Your task to perform on an android device: move an email to a new category in the gmail app Image 0: 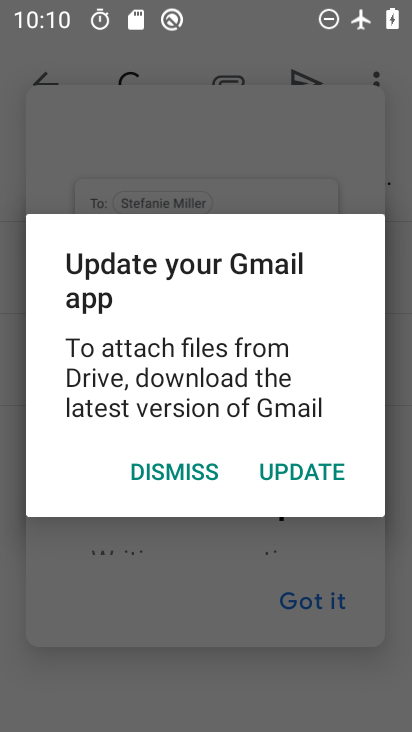
Step 0: press home button
Your task to perform on an android device: move an email to a new category in the gmail app Image 1: 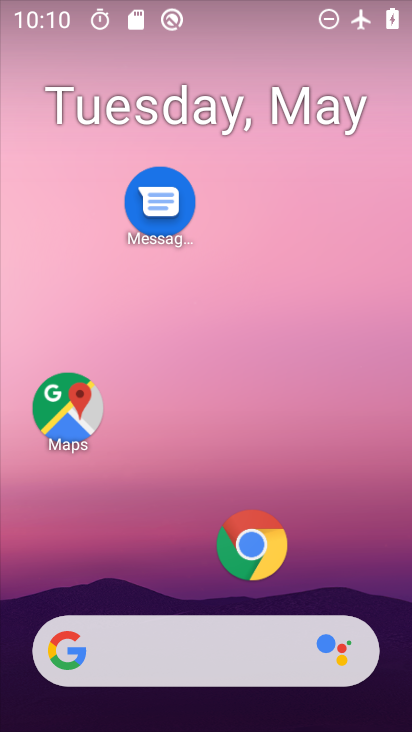
Step 1: drag from (176, 596) to (194, 159)
Your task to perform on an android device: move an email to a new category in the gmail app Image 2: 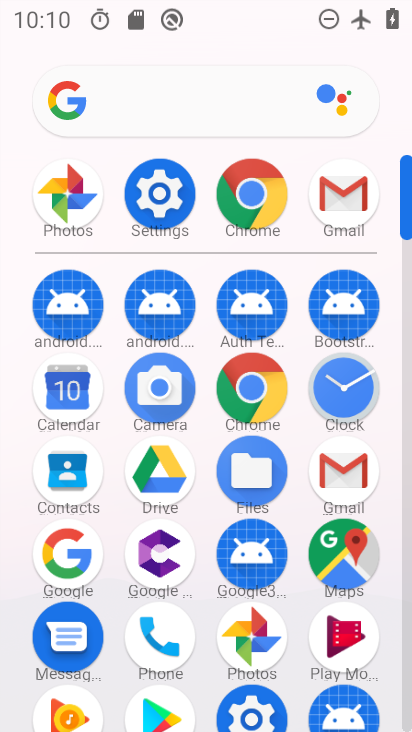
Step 2: click (337, 223)
Your task to perform on an android device: move an email to a new category in the gmail app Image 3: 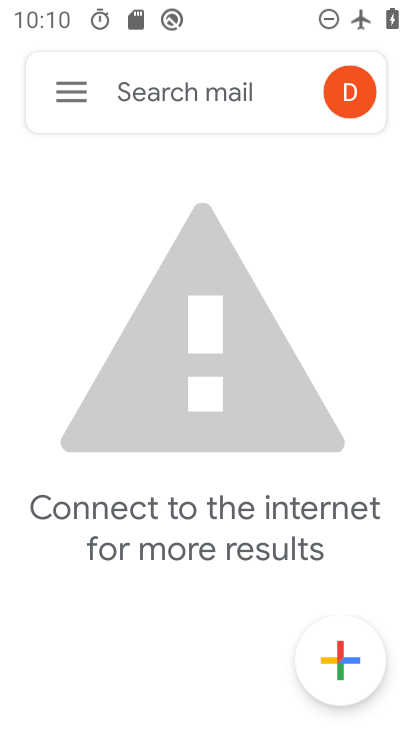
Step 3: click (86, 90)
Your task to perform on an android device: move an email to a new category in the gmail app Image 4: 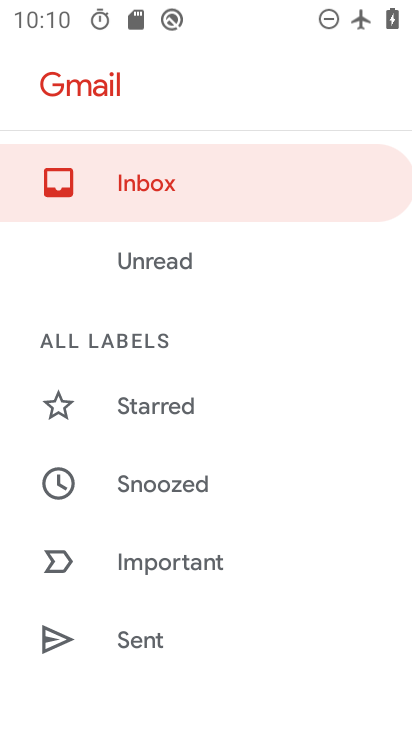
Step 4: drag from (152, 600) to (190, 334)
Your task to perform on an android device: move an email to a new category in the gmail app Image 5: 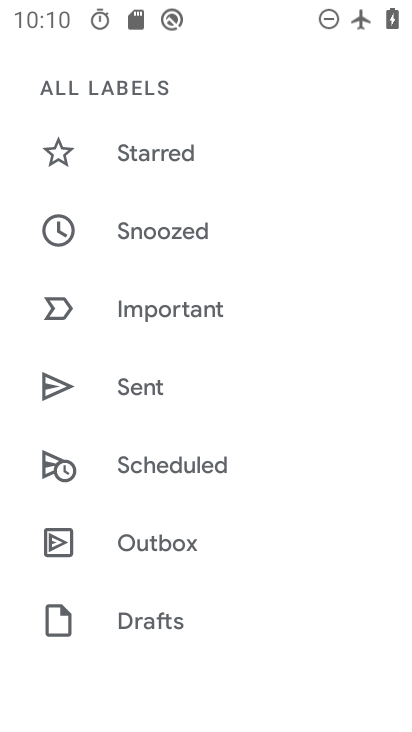
Step 5: drag from (211, 571) to (215, 273)
Your task to perform on an android device: move an email to a new category in the gmail app Image 6: 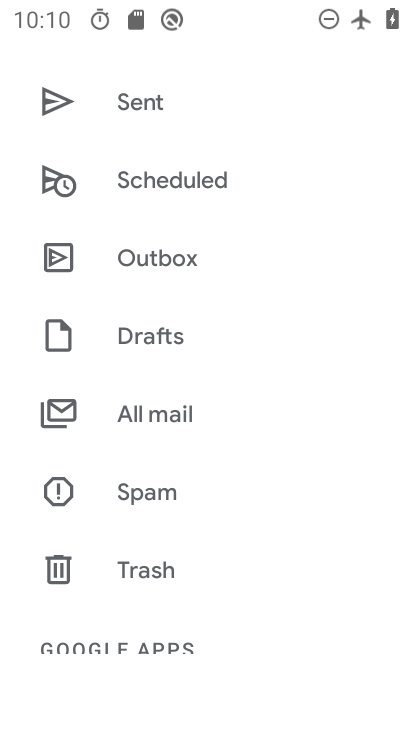
Step 6: click (147, 420)
Your task to perform on an android device: move an email to a new category in the gmail app Image 7: 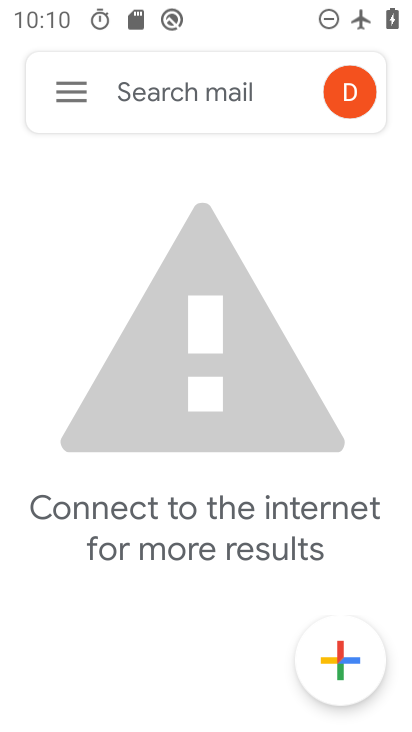
Step 7: task complete